Your task to perform on an android device: Go to Google Image 0: 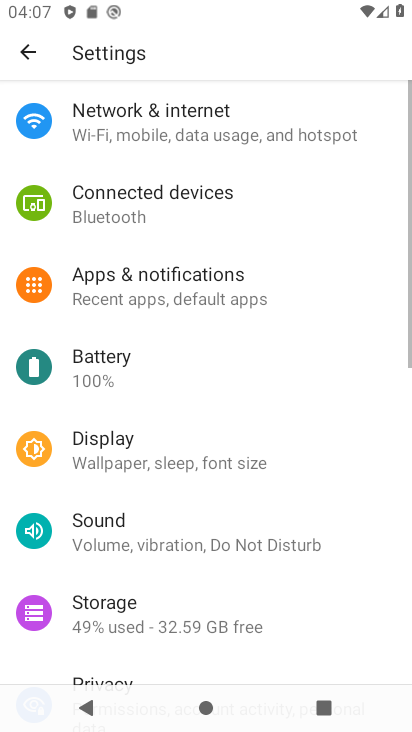
Step 0: press home button
Your task to perform on an android device: Go to Google Image 1: 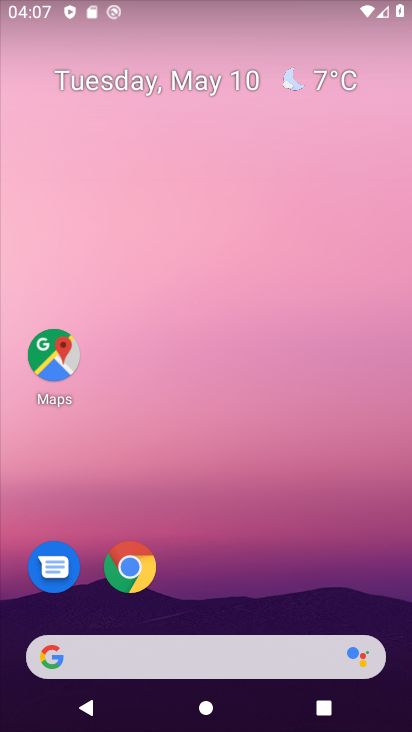
Step 1: drag from (214, 551) to (213, 91)
Your task to perform on an android device: Go to Google Image 2: 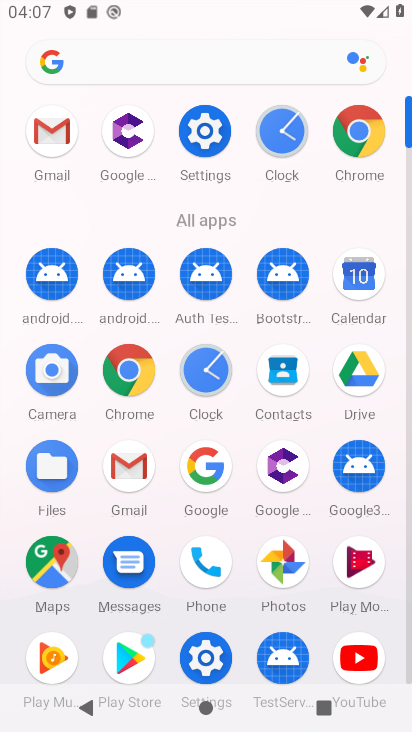
Step 2: click (203, 468)
Your task to perform on an android device: Go to Google Image 3: 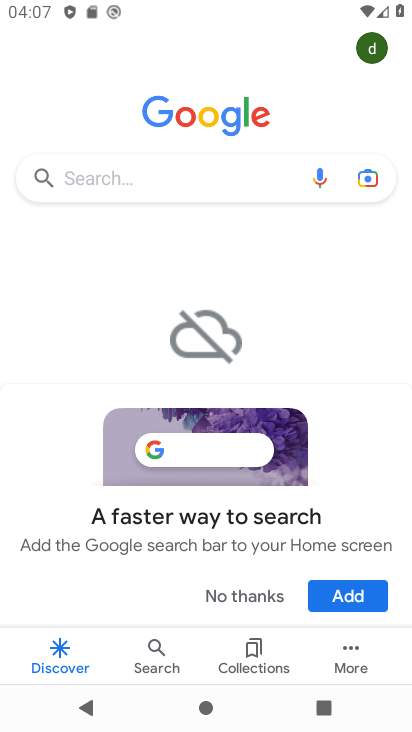
Step 3: task complete